Your task to perform on an android device: Open sound settings Image 0: 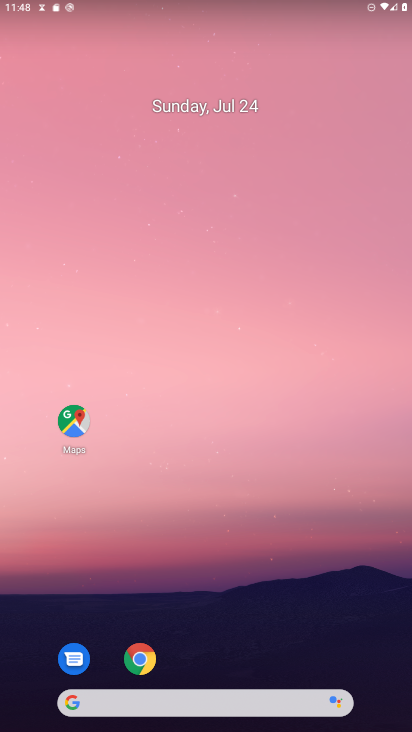
Step 0: drag from (292, 636) to (268, 190)
Your task to perform on an android device: Open sound settings Image 1: 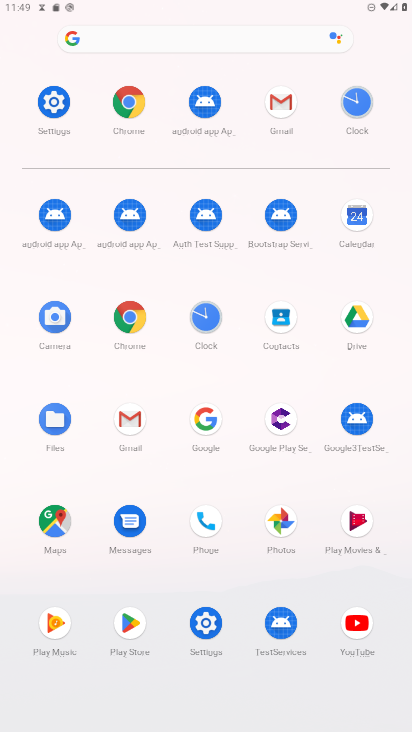
Step 1: click (49, 103)
Your task to perform on an android device: Open sound settings Image 2: 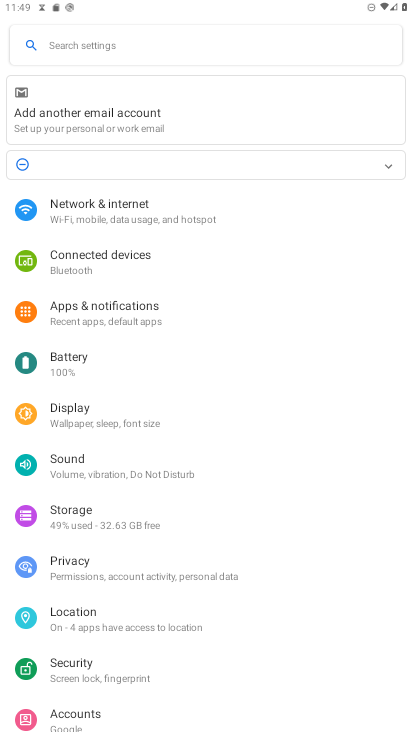
Step 2: click (80, 468)
Your task to perform on an android device: Open sound settings Image 3: 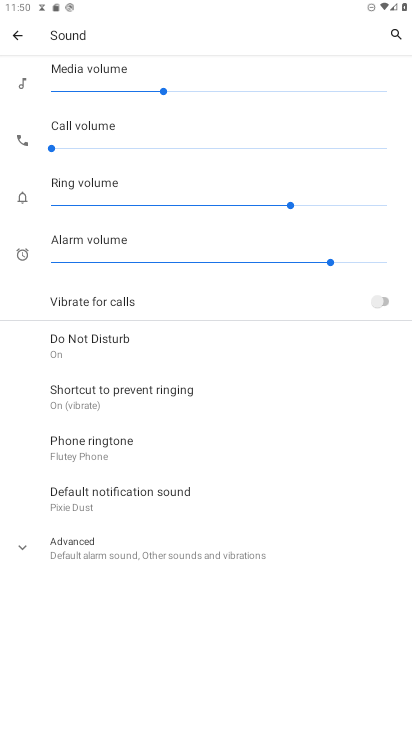
Step 3: task complete